Your task to perform on an android device: turn smart compose on in the gmail app Image 0: 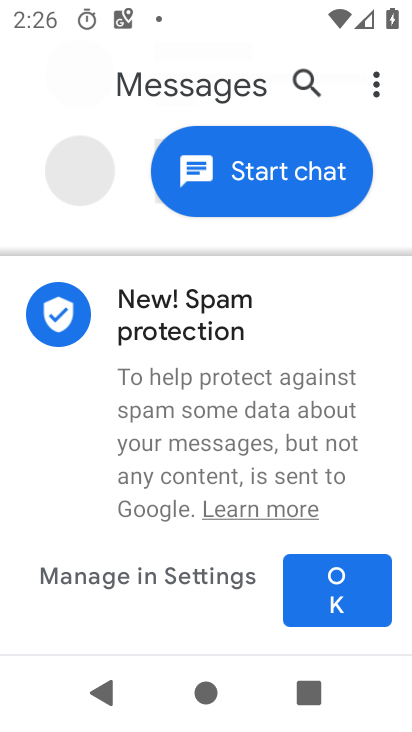
Step 0: press home button
Your task to perform on an android device: turn smart compose on in the gmail app Image 1: 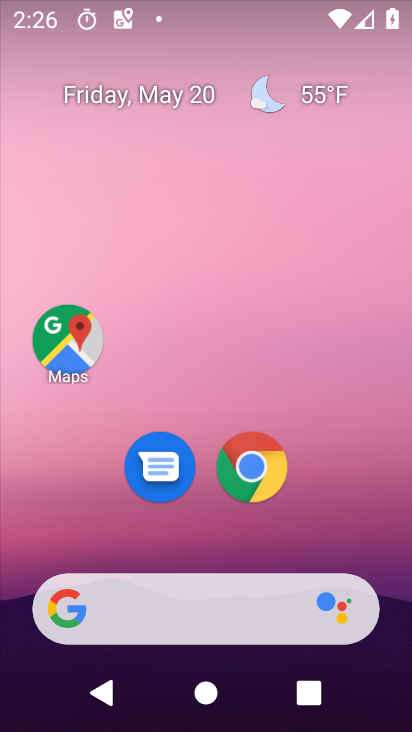
Step 1: drag from (260, 540) to (233, 15)
Your task to perform on an android device: turn smart compose on in the gmail app Image 2: 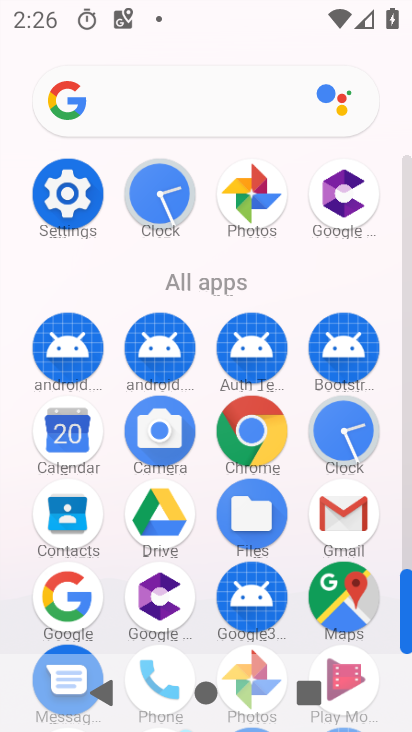
Step 2: click (334, 517)
Your task to perform on an android device: turn smart compose on in the gmail app Image 3: 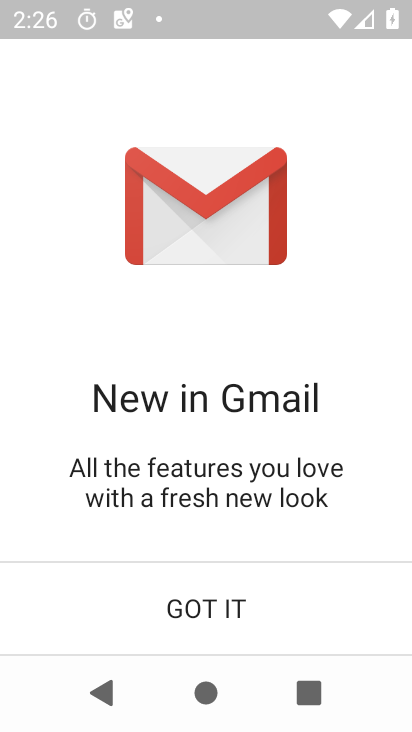
Step 3: click (246, 603)
Your task to perform on an android device: turn smart compose on in the gmail app Image 4: 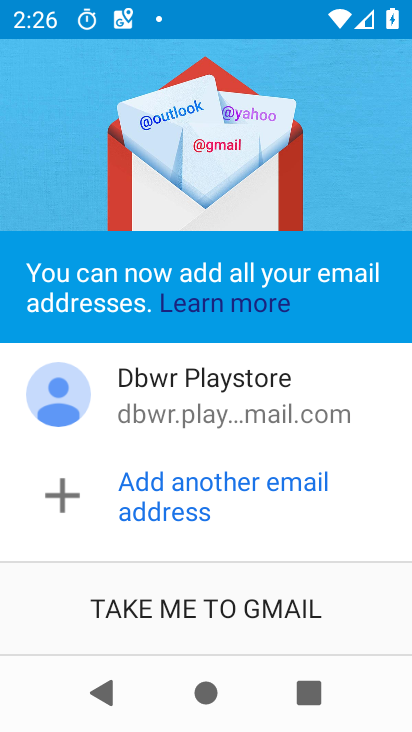
Step 4: click (240, 608)
Your task to perform on an android device: turn smart compose on in the gmail app Image 5: 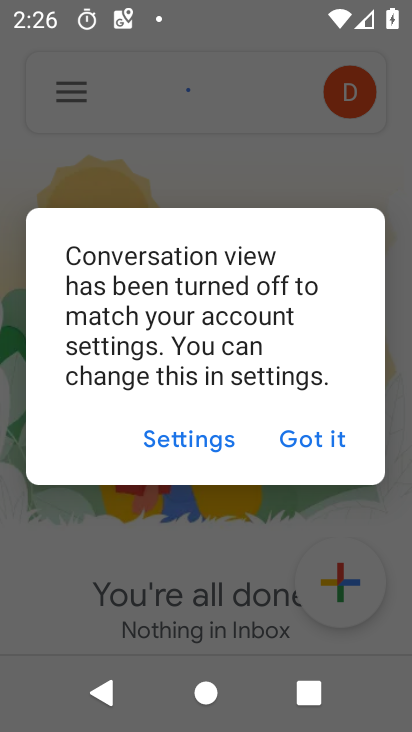
Step 5: click (320, 447)
Your task to perform on an android device: turn smart compose on in the gmail app Image 6: 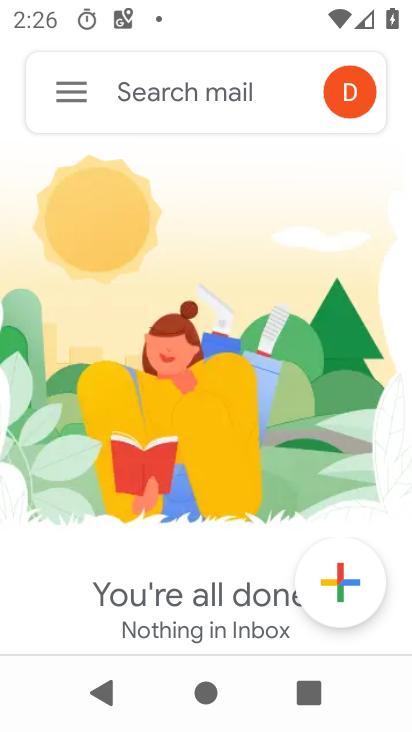
Step 6: click (53, 91)
Your task to perform on an android device: turn smart compose on in the gmail app Image 7: 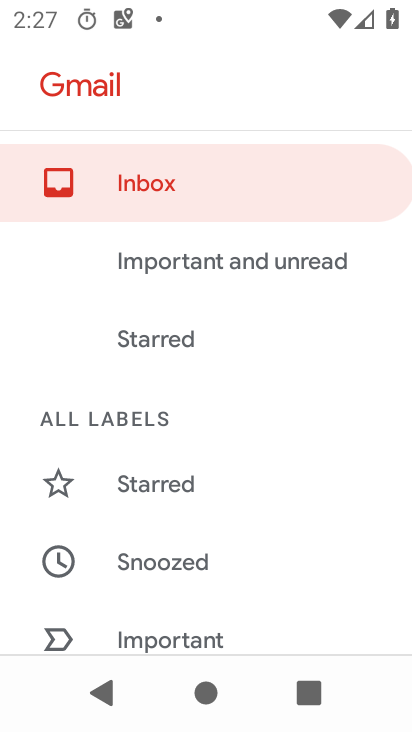
Step 7: drag from (207, 576) to (196, 34)
Your task to perform on an android device: turn smart compose on in the gmail app Image 8: 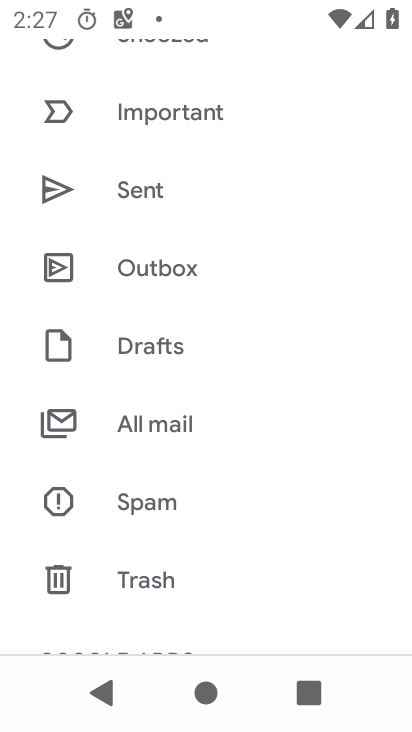
Step 8: drag from (222, 576) to (234, 111)
Your task to perform on an android device: turn smart compose on in the gmail app Image 9: 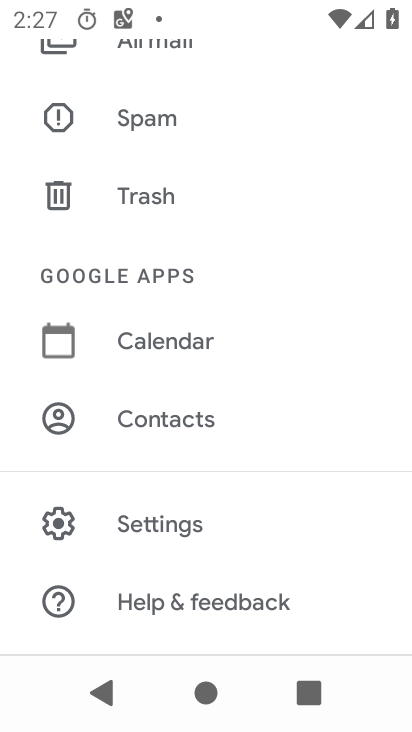
Step 9: click (189, 529)
Your task to perform on an android device: turn smart compose on in the gmail app Image 10: 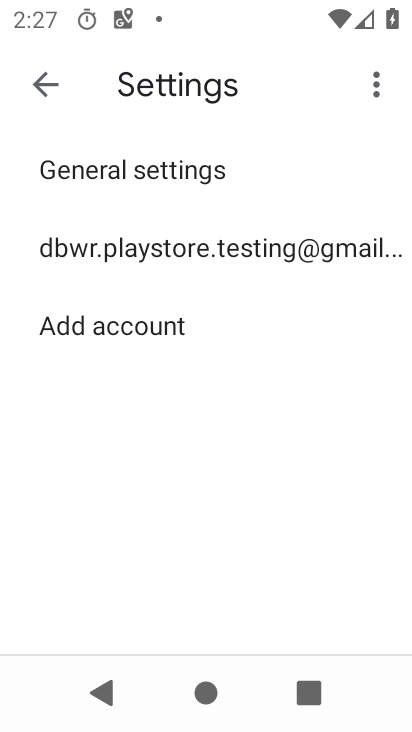
Step 10: drag from (219, 533) to (228, 231)
Your task to perform on an android device: turn smart compose on in the gmail app Image 11: 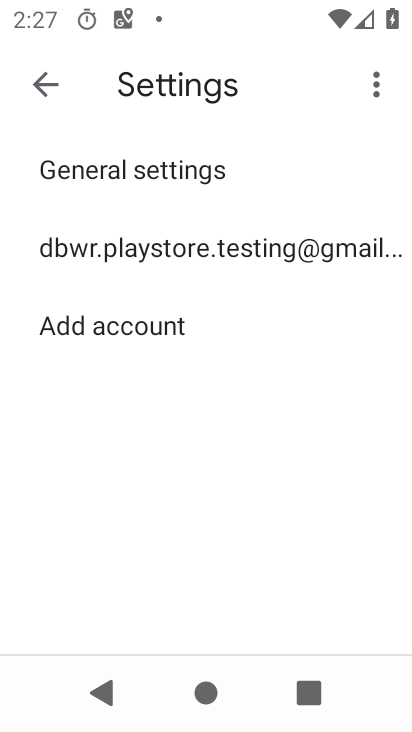
Step 11: click (218, 228)
Your task to perform on an android device: turn smart compose on in the gmail app Image 12: 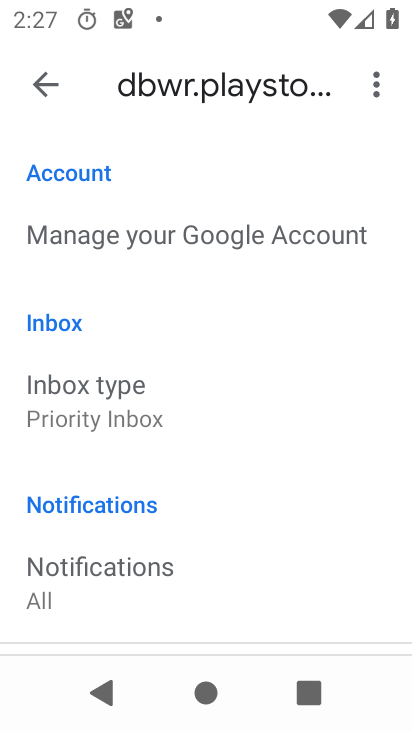
Step 12: task complete